Your task to perform on an android device: Open Chrome and go to settings Image 0: 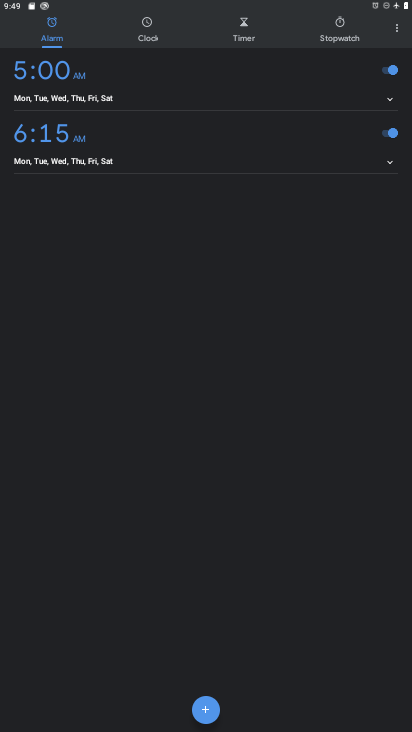
Step 0: press home button
Your task to perform on an android device: Open Chrome and go to settings Image 1: 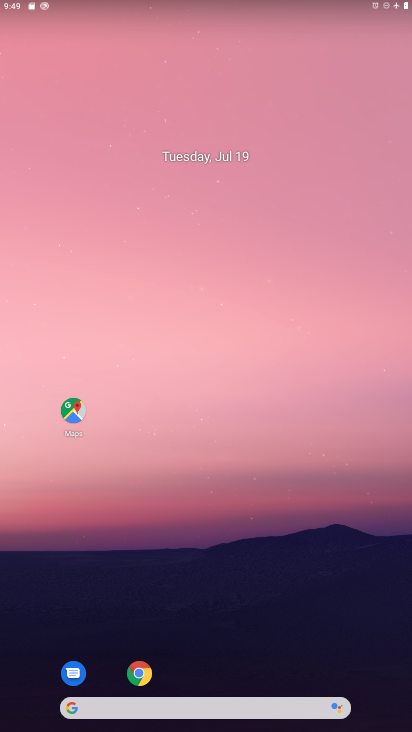
Step 1: click (137, 674)
Your task to perform on an android device: Open Chrome and go to settings Image 2: 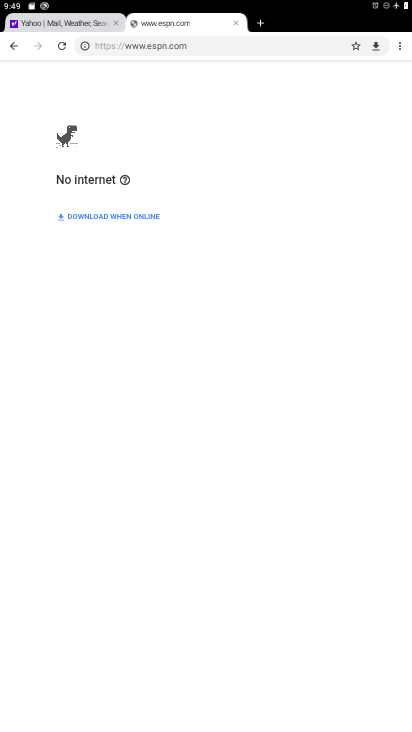
Step 2: click (397, 46)
Your task to perform on an android device: Open Chrome and go to settings Image 3: 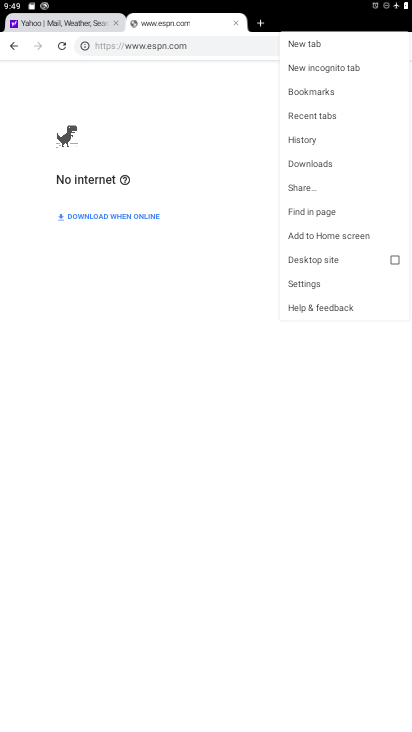
Step 3: click (307, 278)
Your task to perform on an android device: Open Chrome and go to settings Image 4: 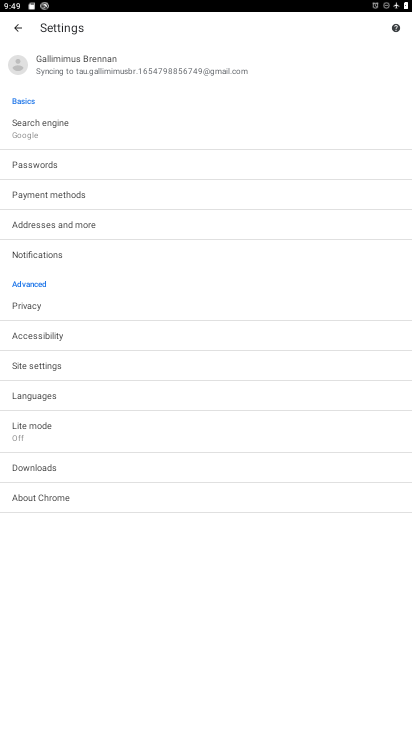
Step 4: task complete